Your task to perform on an android device: Open the phone app and click the voicemail tab. Image 0: 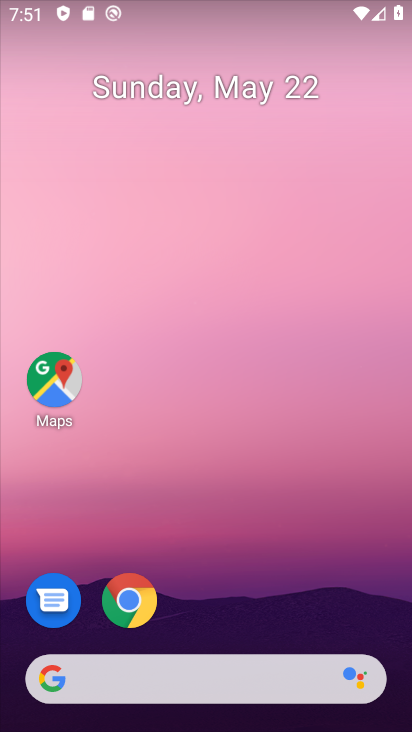
Step 0: drag from (225, 647) to (211, 317)
Your task to perform on an android device: Open the phone app and click the voicemail tab. Image 1: 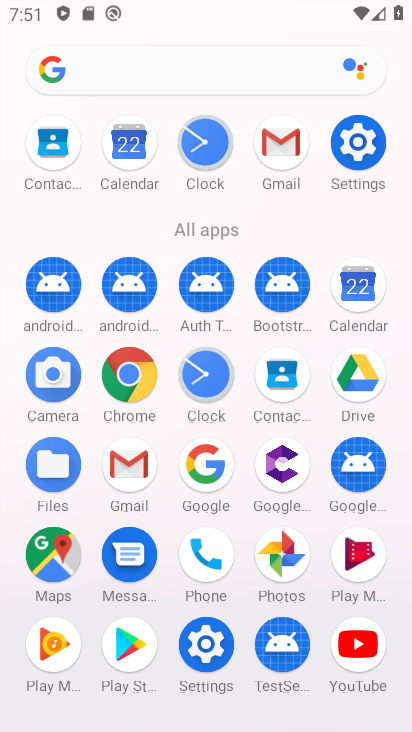
Step 1: click (191, 565)
Your task to perform on an android device: Open the phone app and click the voicemail tab. Image 2: 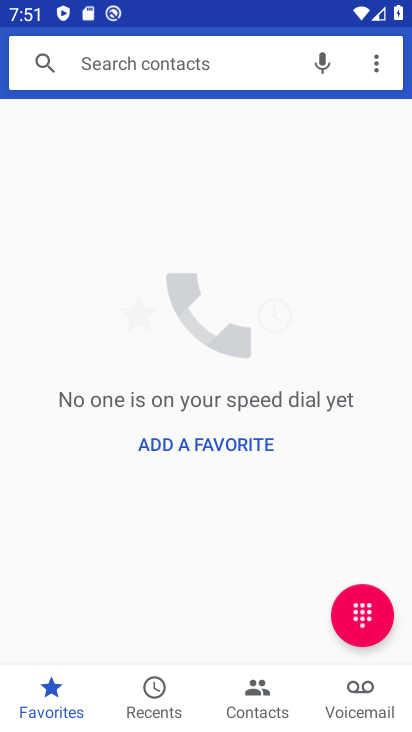
Step 2: click (365, 695)
Your task to perform on an android device: Open the phone app and click the voicemail tab. Image 3: 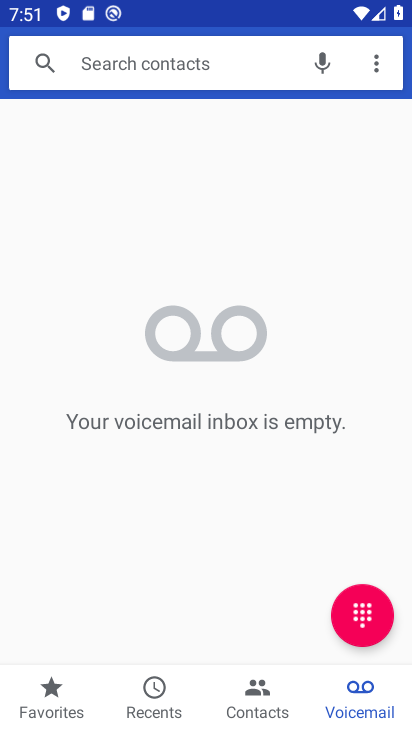
Step 3: task complete